Your task to perform on an android device: change the clock display to digital Image 0: 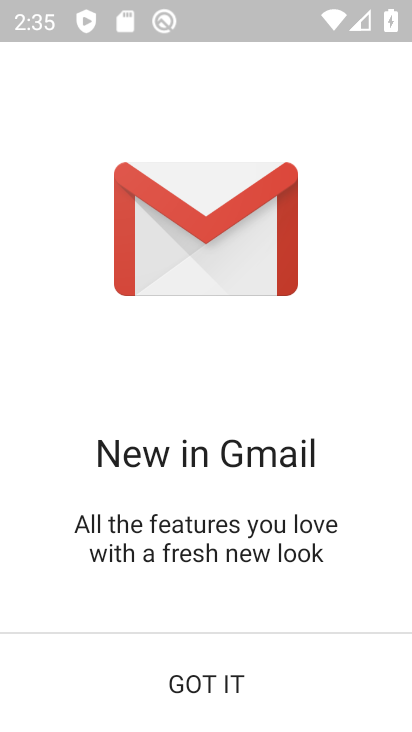
Step 0: press home button
Your task to perform on an android device: change the clock display to digital Image 1: 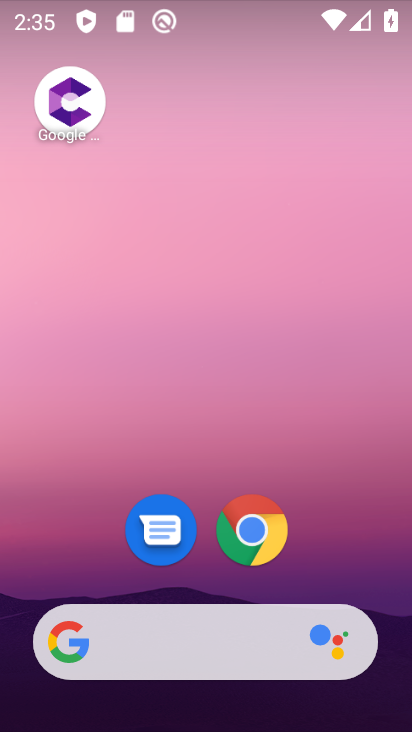
Step 1: drag from (101, 594) to (216, 231)
Your task to perform on an android device: change the clock display to digital Image 2: 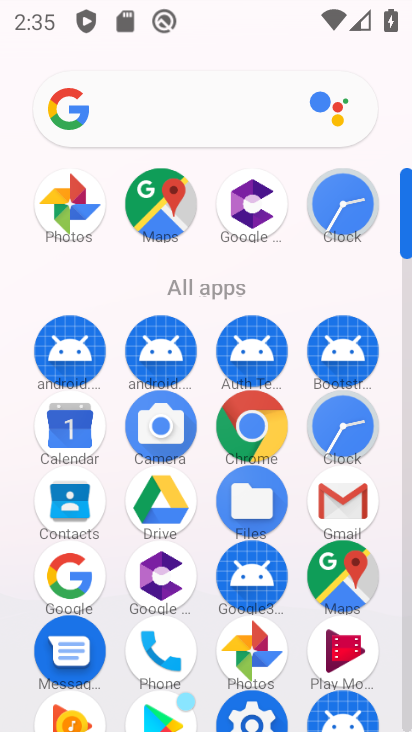
Step 2: click (334, 439)
Your task to perform on an android device: change the clock display to digital Image 3: 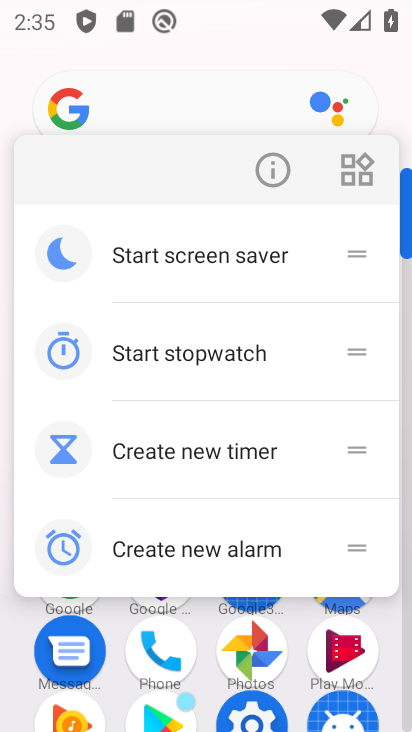
Step 3: press back button
Your task to perform on an android device: change the clock display to digital Image 4: 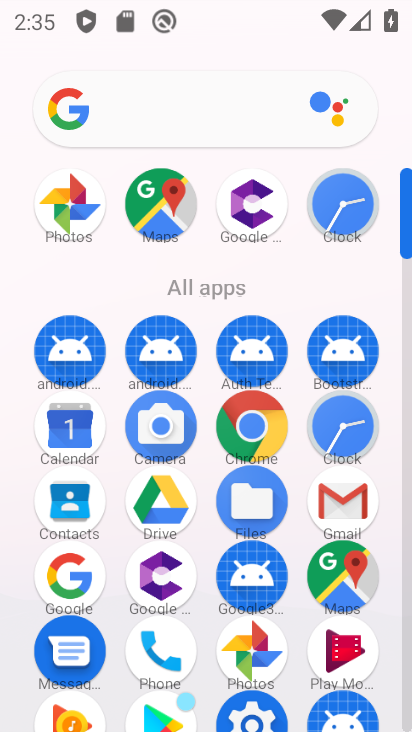
Step 4: click (351, 424)
Your task to perform on an android device: change the clock display to digital Image 5: 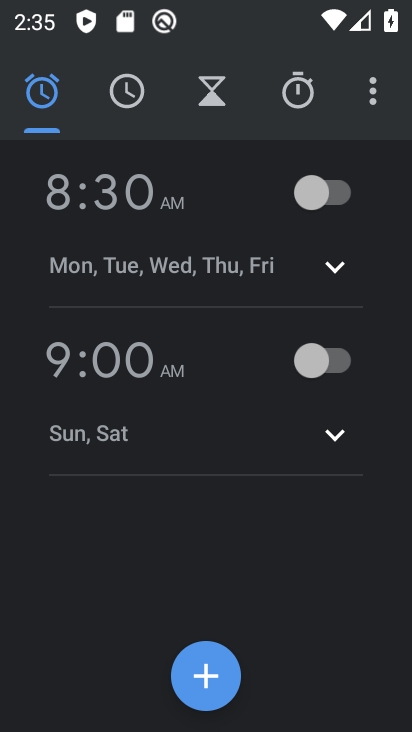
Step 5: click (382, 99)
Your task to perform on an android device: change the clock display to digital Image 6: 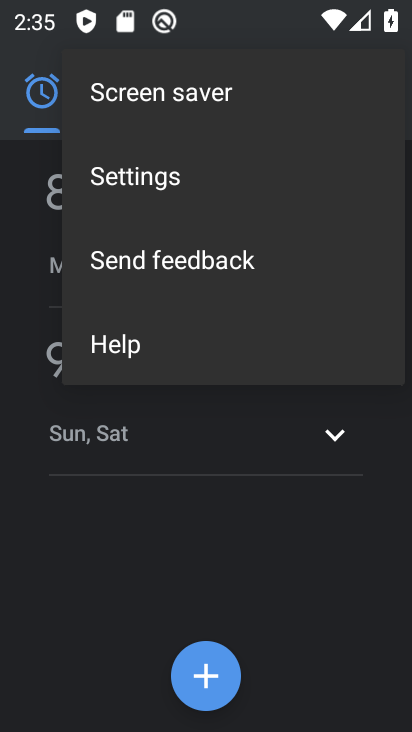
Step 6: click (195, 180)
Your task to perform on an android device: change the clock display to digital Image 7: 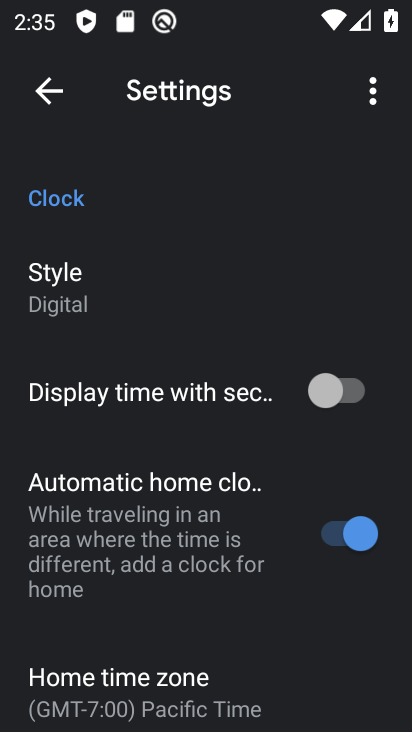
Step 7: task complete